Your task to perform on an android device: Go to location settings Image 0: 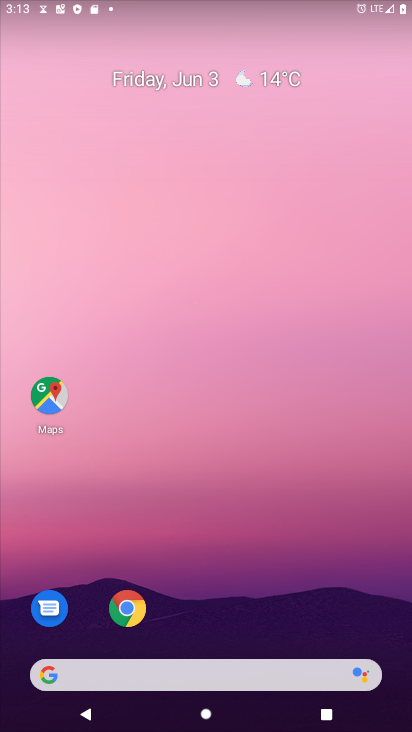
Step 0: drag from (217, 658) to (267, 25)
Your task to perform on an android device: Go to location settings Image 1: 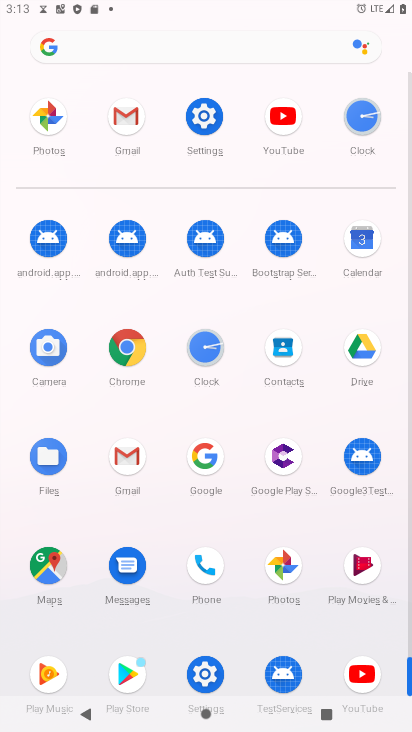
Step 1: click (199, 108)
Your task to perform on an android device: Go to location settings Image 2: 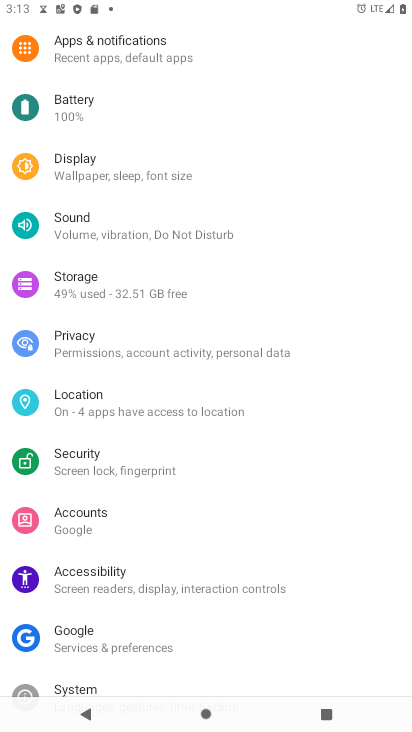
Step 2: click (91, 398)
Your task to perform on an android device: Go to location settings Image 3: 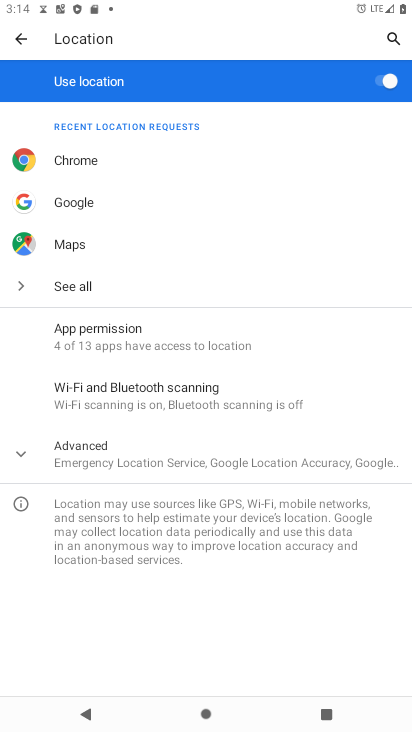
Step 3: task complete